Your task to perform on an android device: Open display settings Image 0: 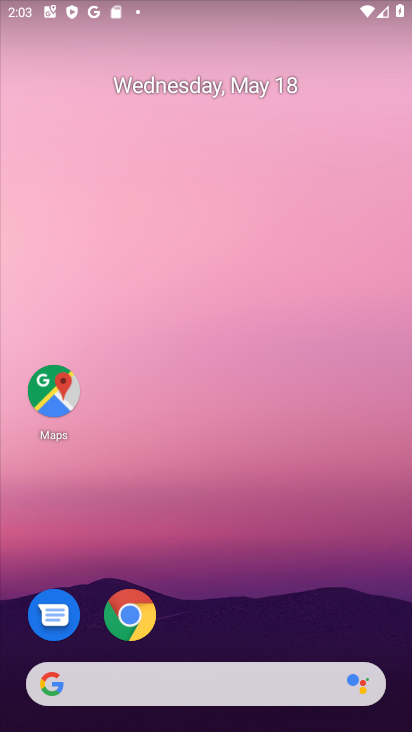
Step 0: drag from (261, 637) to (300, 0)
Your task to perform on an android device: Open display settings Image 1: 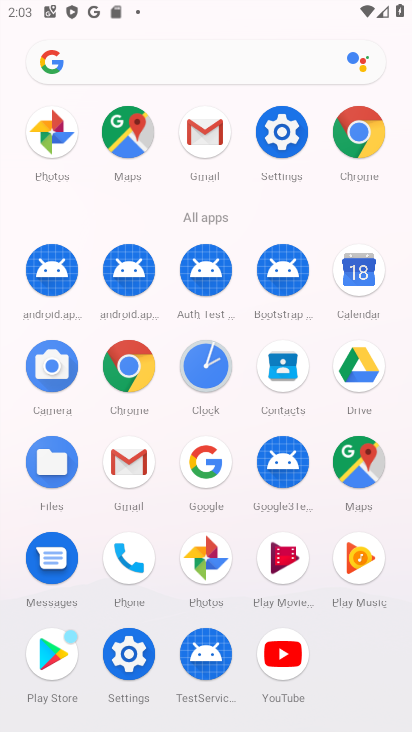
Step 1: click (285, 126)
Your task to perform on an android device: Open display settings Image 2: 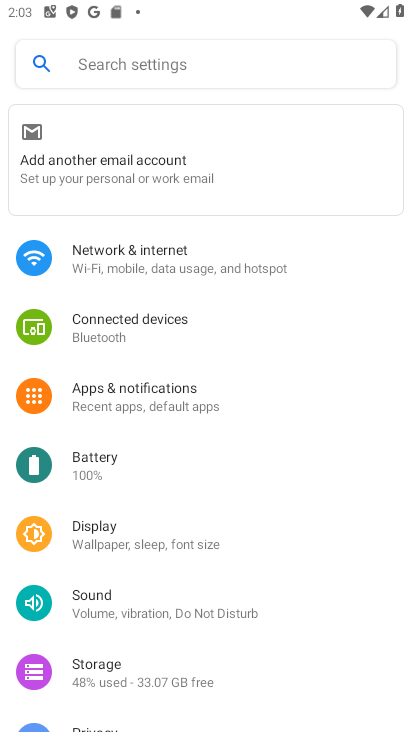
Step 2: click (221, 532)
Your task to perform on an android device: Open display settings Image 3: 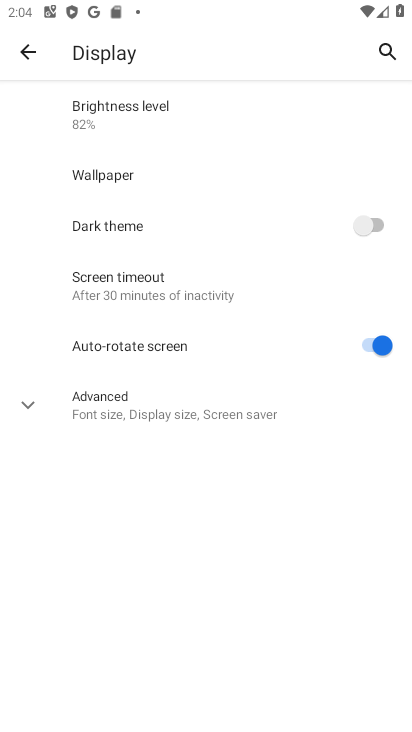
Step 3: task complete